Your task to perform on an android device: Open Amazon Image 0: 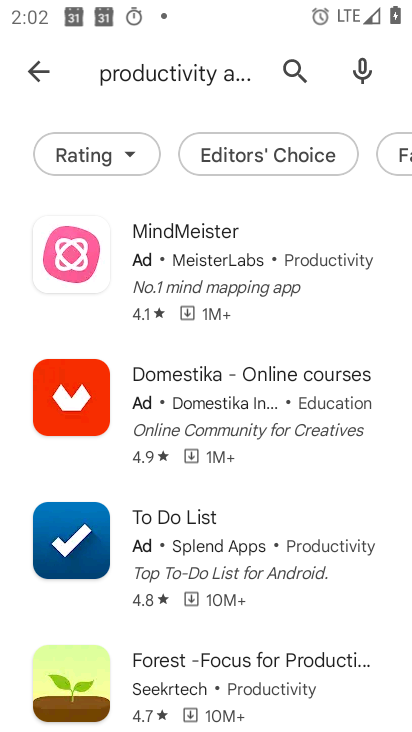
Step 0: press home button
Your task to perform on an android device: Open Amazon Image 1: 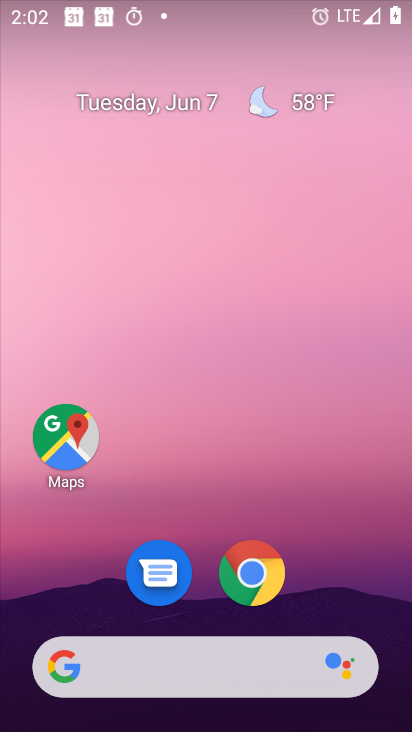
Step 1: drag from (292, 609) to (343, 32)
Your task to perform on an android device: Open Amazon Image 2: 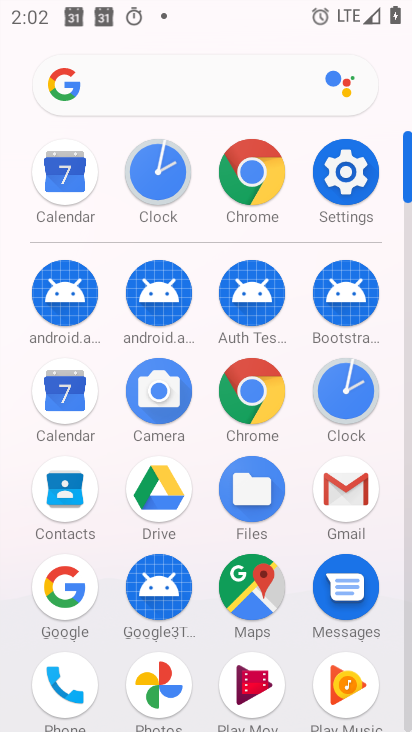
Step 2: click (258, 374)
Your task to perform on an android device: Open Amazon Image 3: 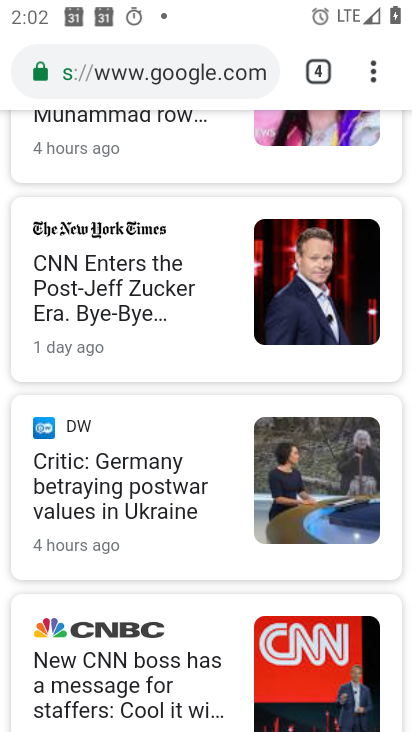
Step 3: drag from (368, 72) to (174, 144)
Your task to perform on an android device: Open Amazon Image 4: 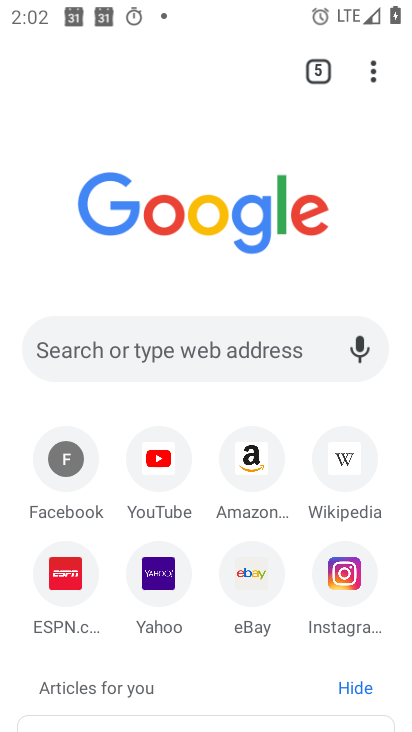
Step 4: click (248, 447)
Your task to perform on an android device: Open Amazon Image 5: 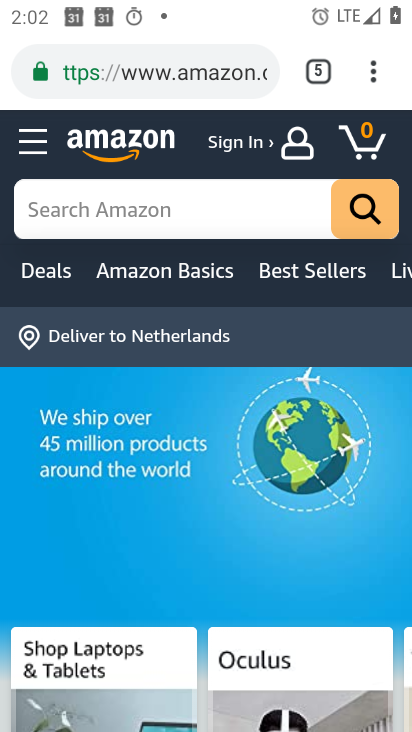
Step 5: task complete